Your task to perform on an android device: open app "Nova Launcher" Image 0: 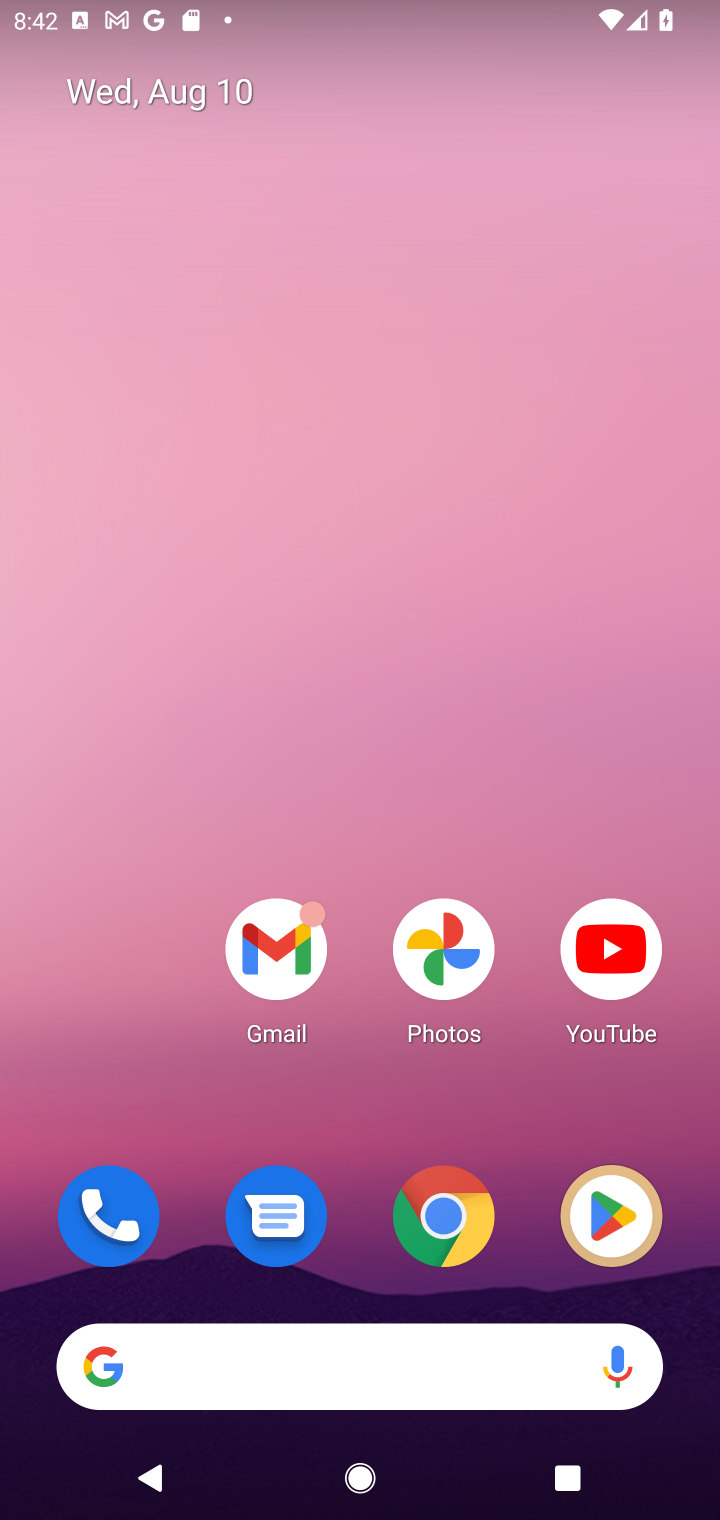
Step 0: press home button
Your task to perform on an android device: open app "Nova Launcher" Image 1: 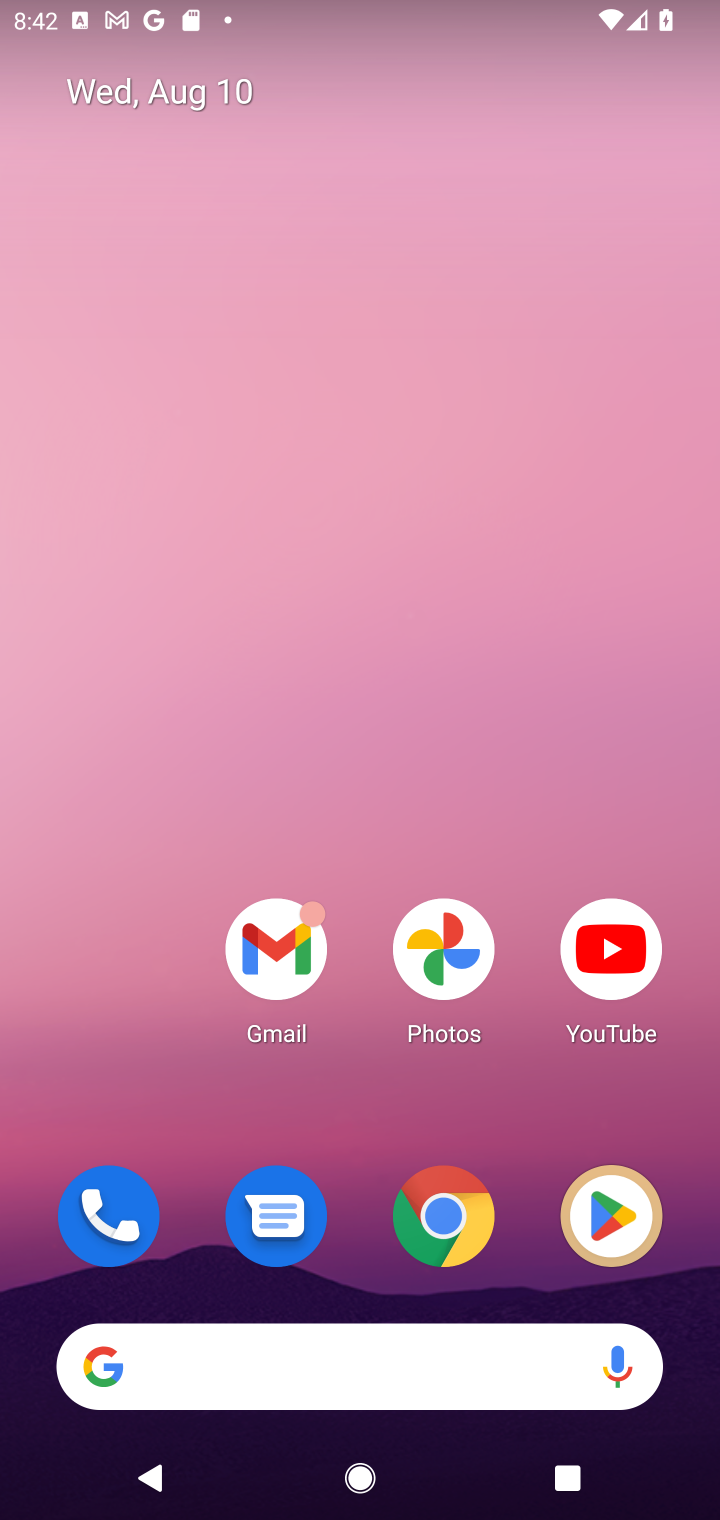
Step 1: click (621, 1195)
Your task to perform on an android device: open app "Nova Launcher" Image 2: 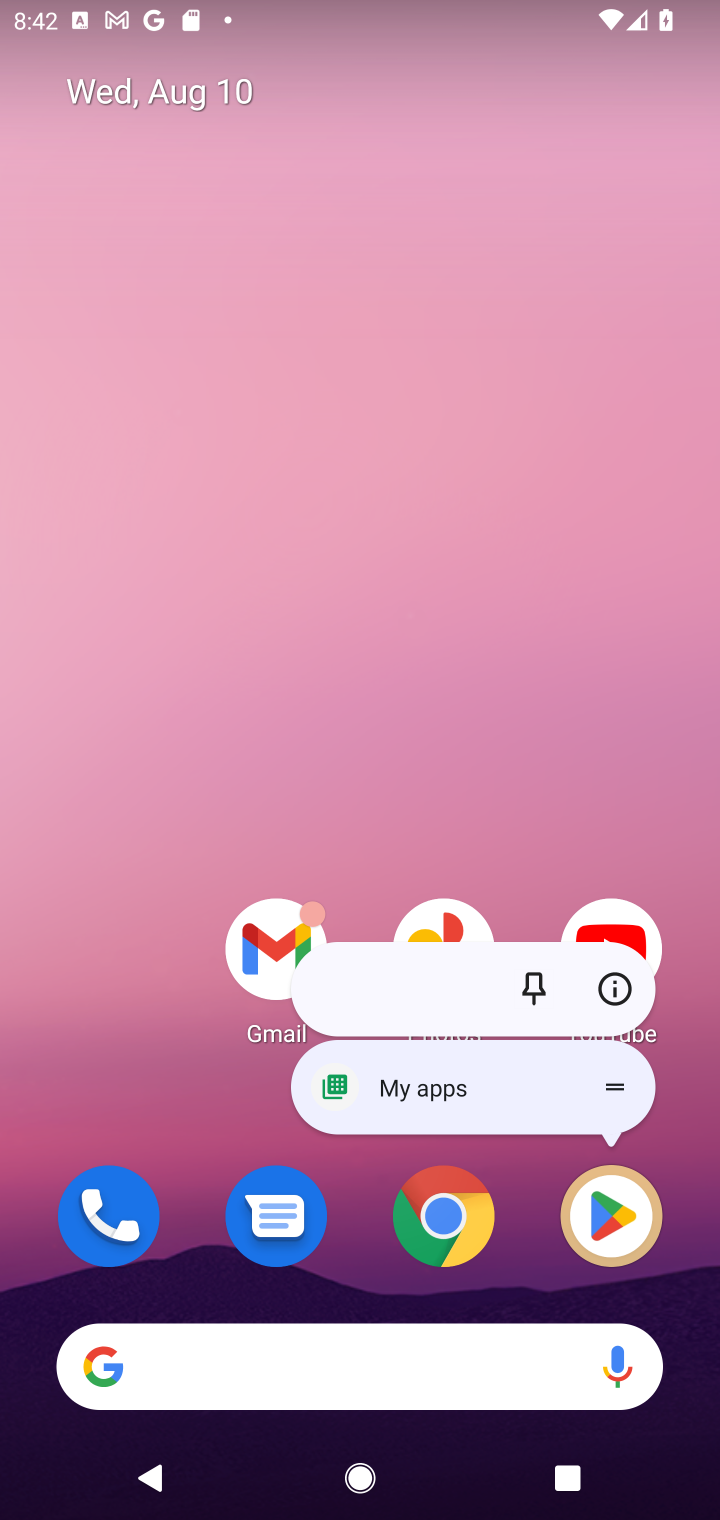
Step 2: click (601, 1220)
Your task to perform on an android device: open app "Nova Launcher" Image 3: 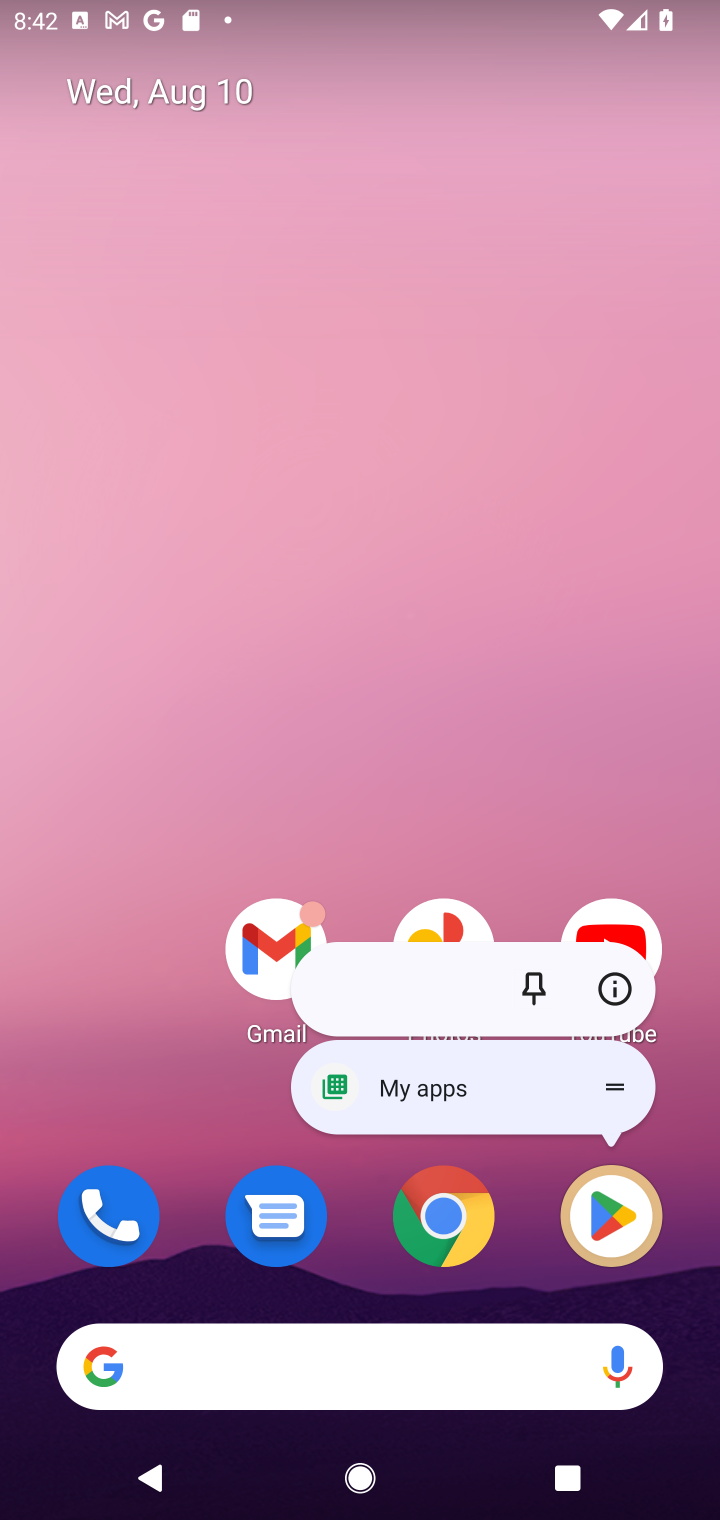
Step 3: click (629, 1198)
Your task to perform on an android device: open app "Nova Launcher" Image 4: 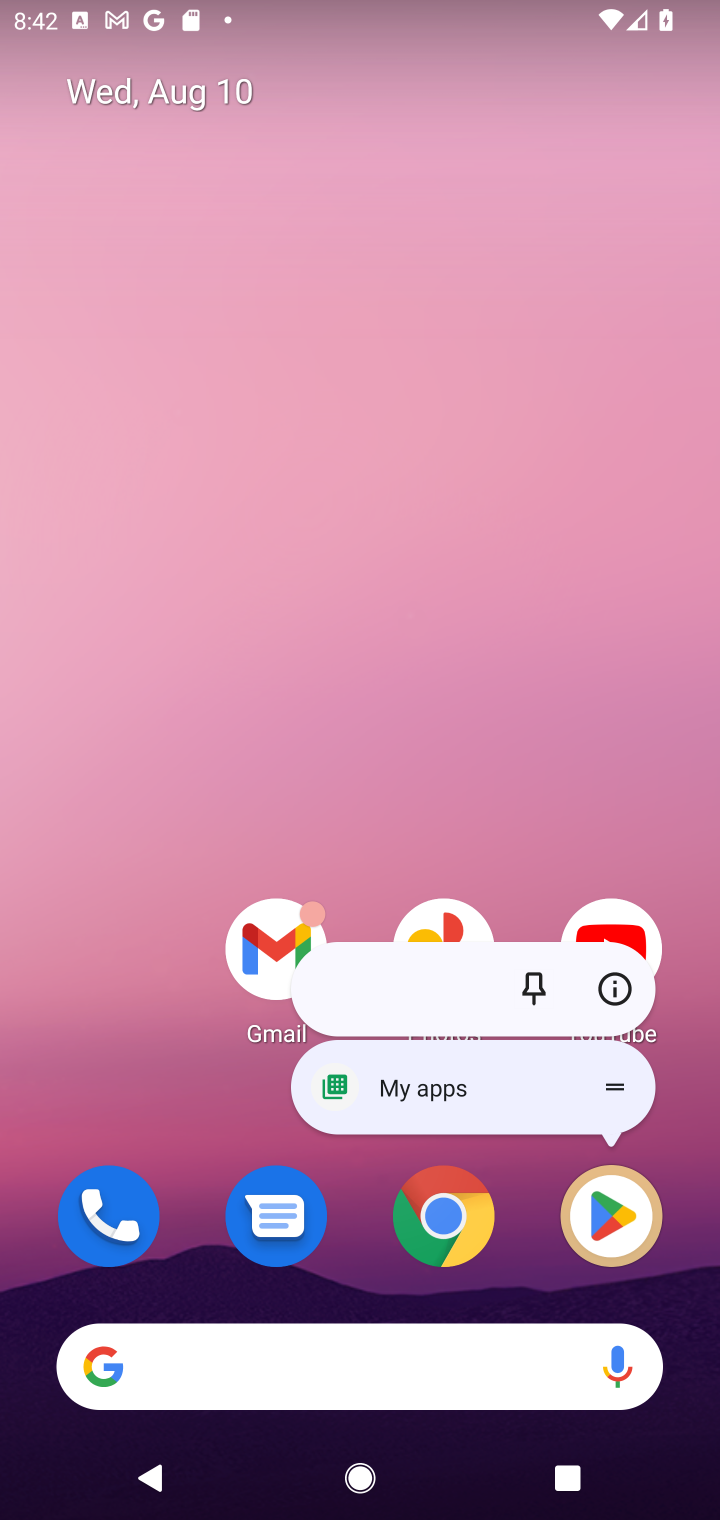
Step 4: click (627, 1211)
Your task to perform on an android device: open app "Nova Launcher" Image 5: 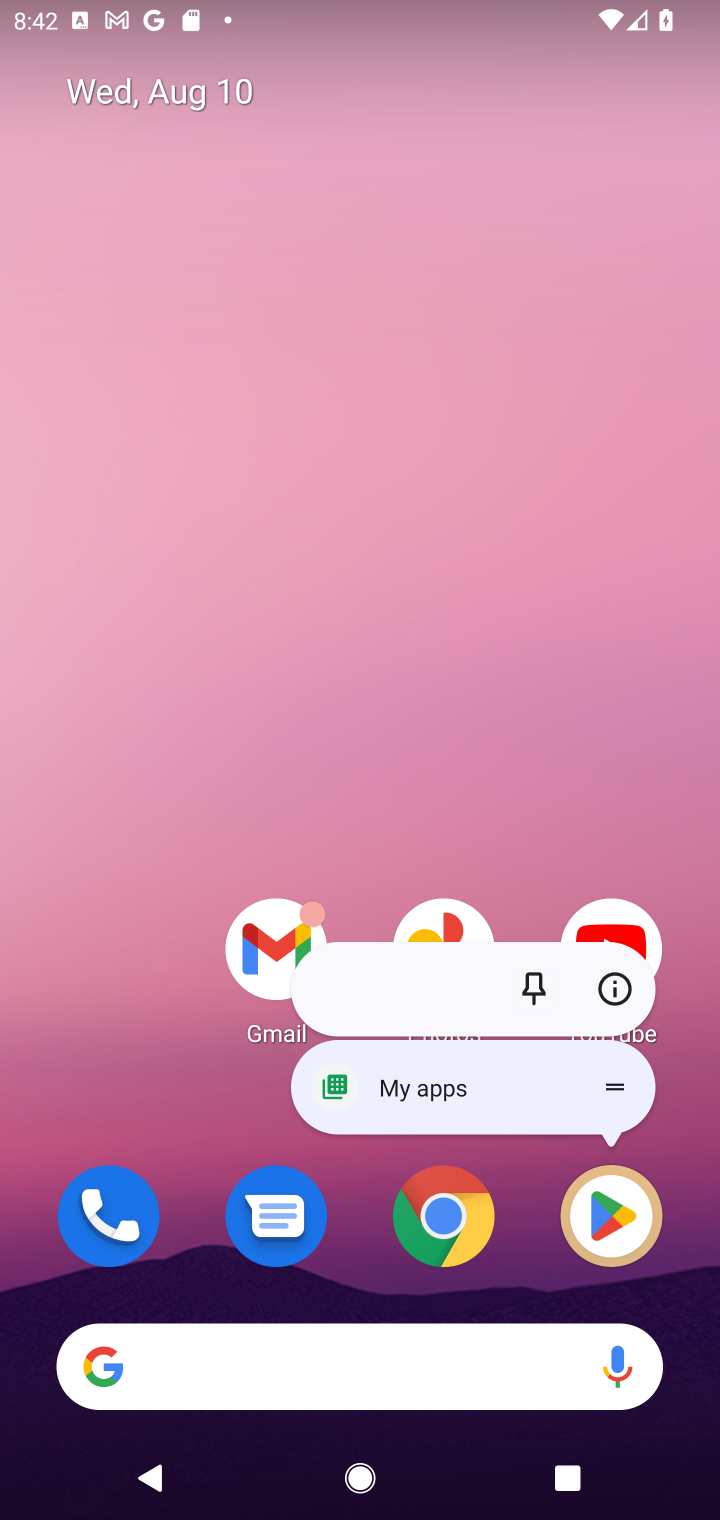
Step 5: click (613, 1202)
Your task to perform on an android device: open app "Nova Launcher" Image 6: 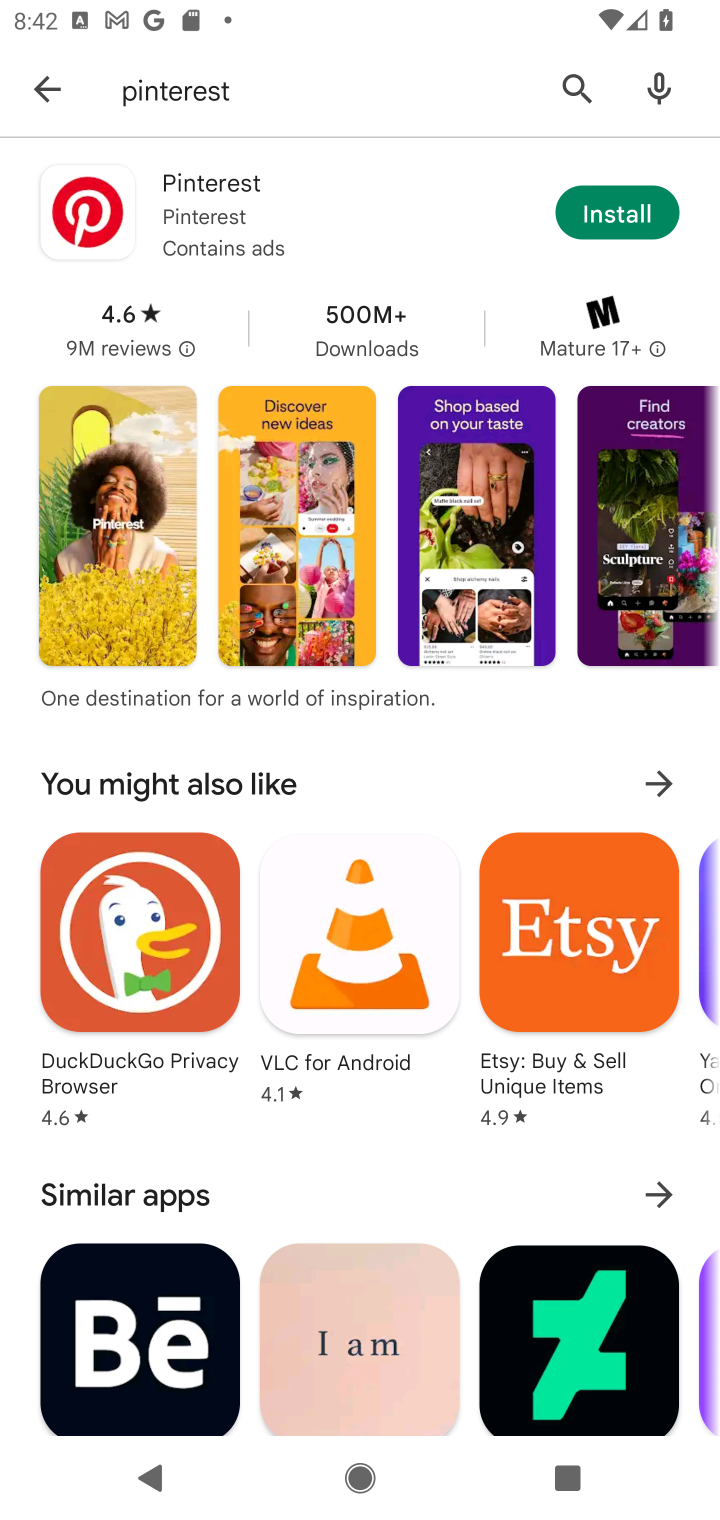
Step 6: click (582, 91)
Your task to perform on an android device: open app "Nova Launcher" Image 7: 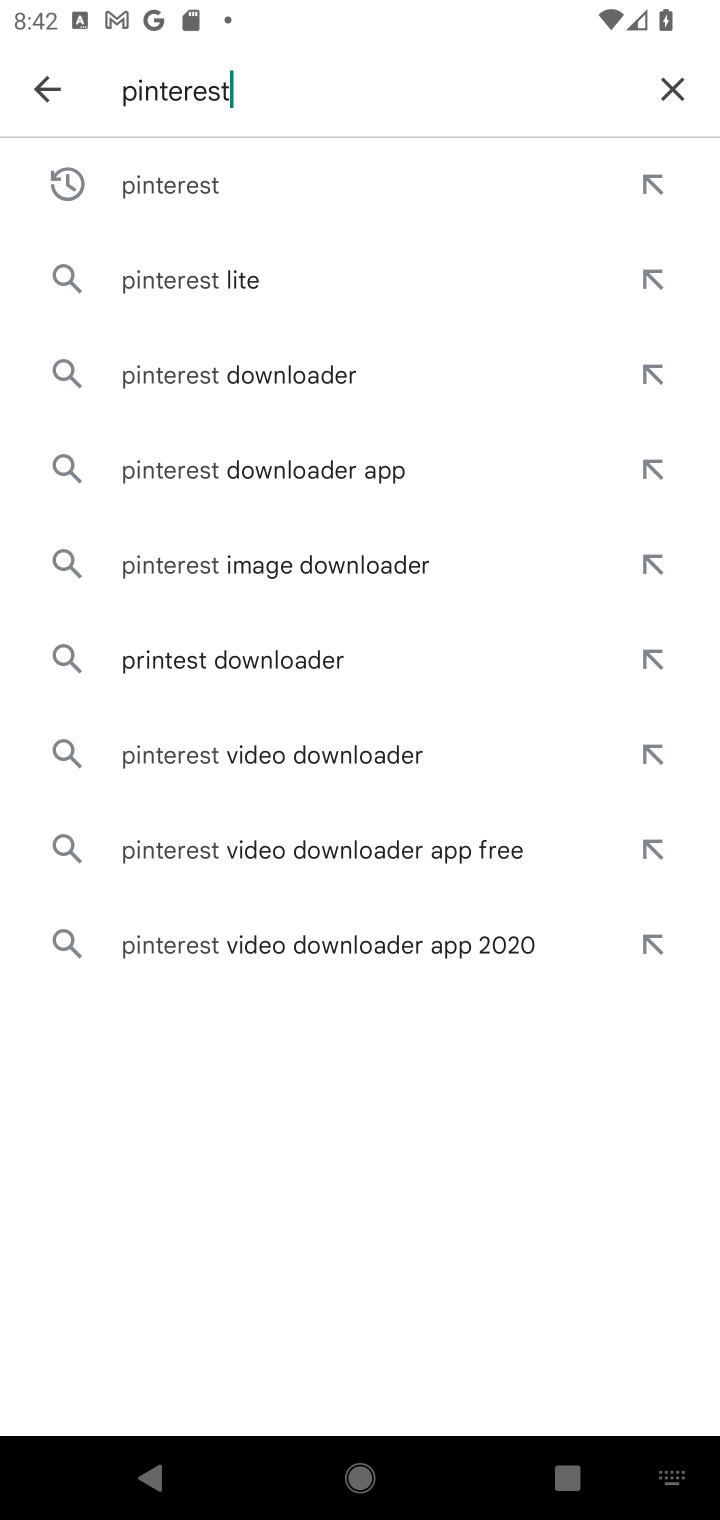
Step 7: click (667, 88)
Your task to perform on an android device: open app "Nova Launcher" Image 8: 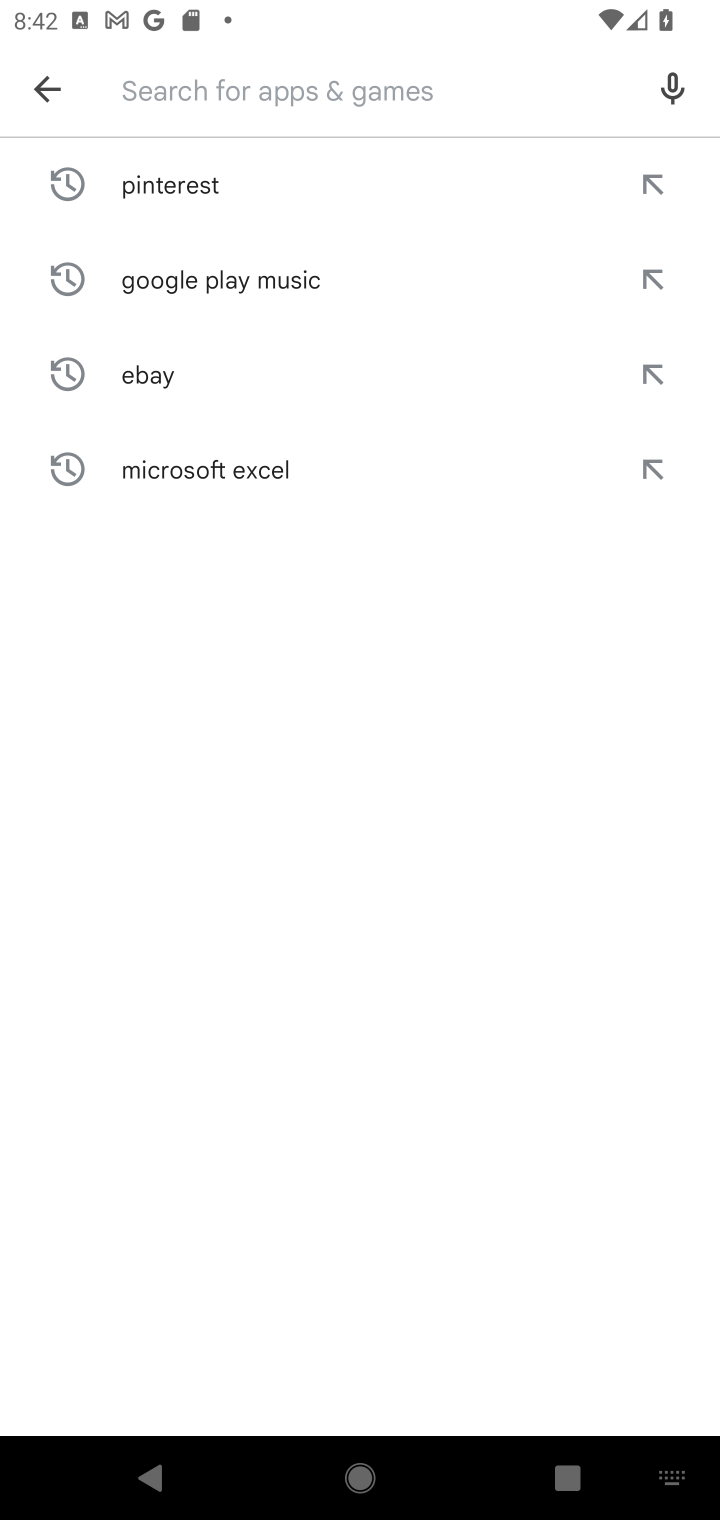
Step 8: click (167, 106)
Your task to perform on an android device: open app "Nova Launcher" Image 9: 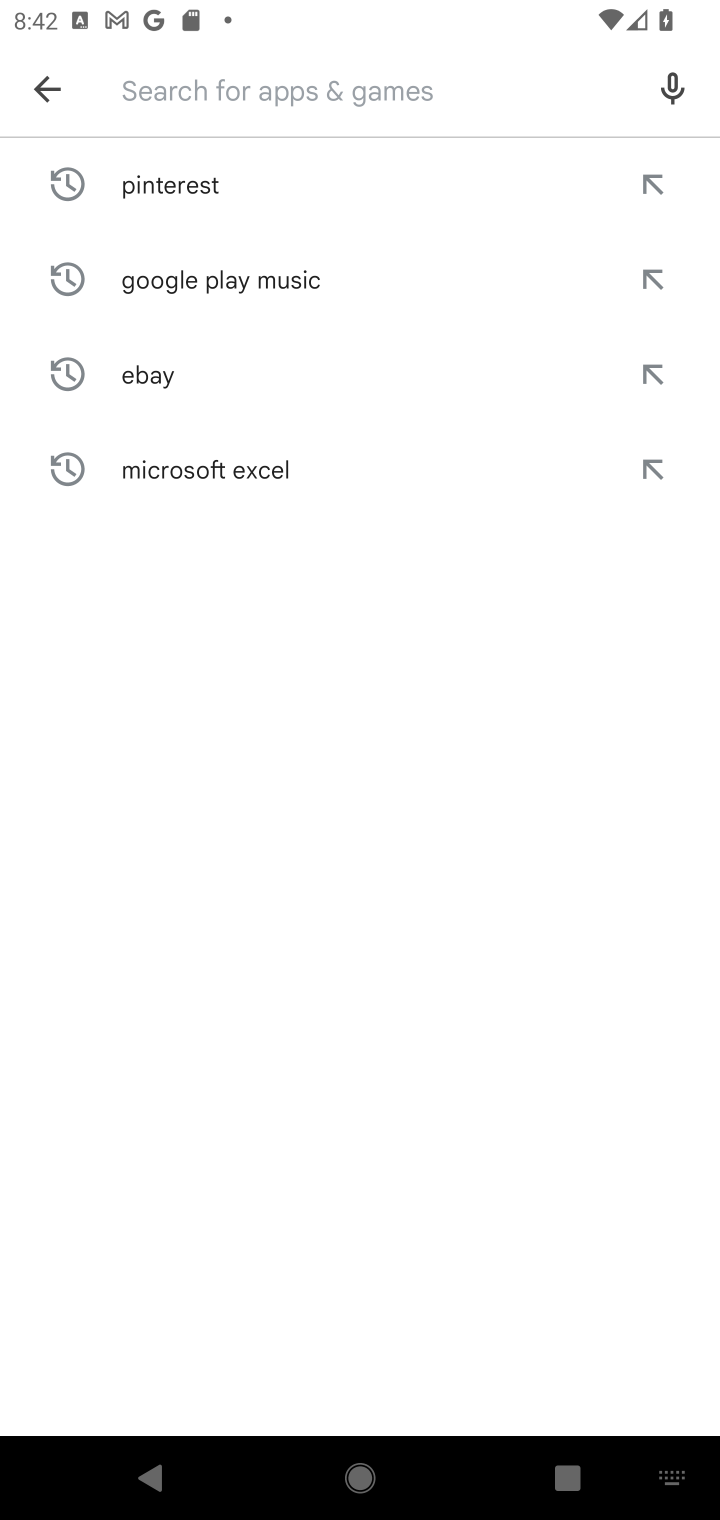
Step 9: type "Nova Launcher"
Your task to perform on an android device: open app "Nova Launcher" Image 10: 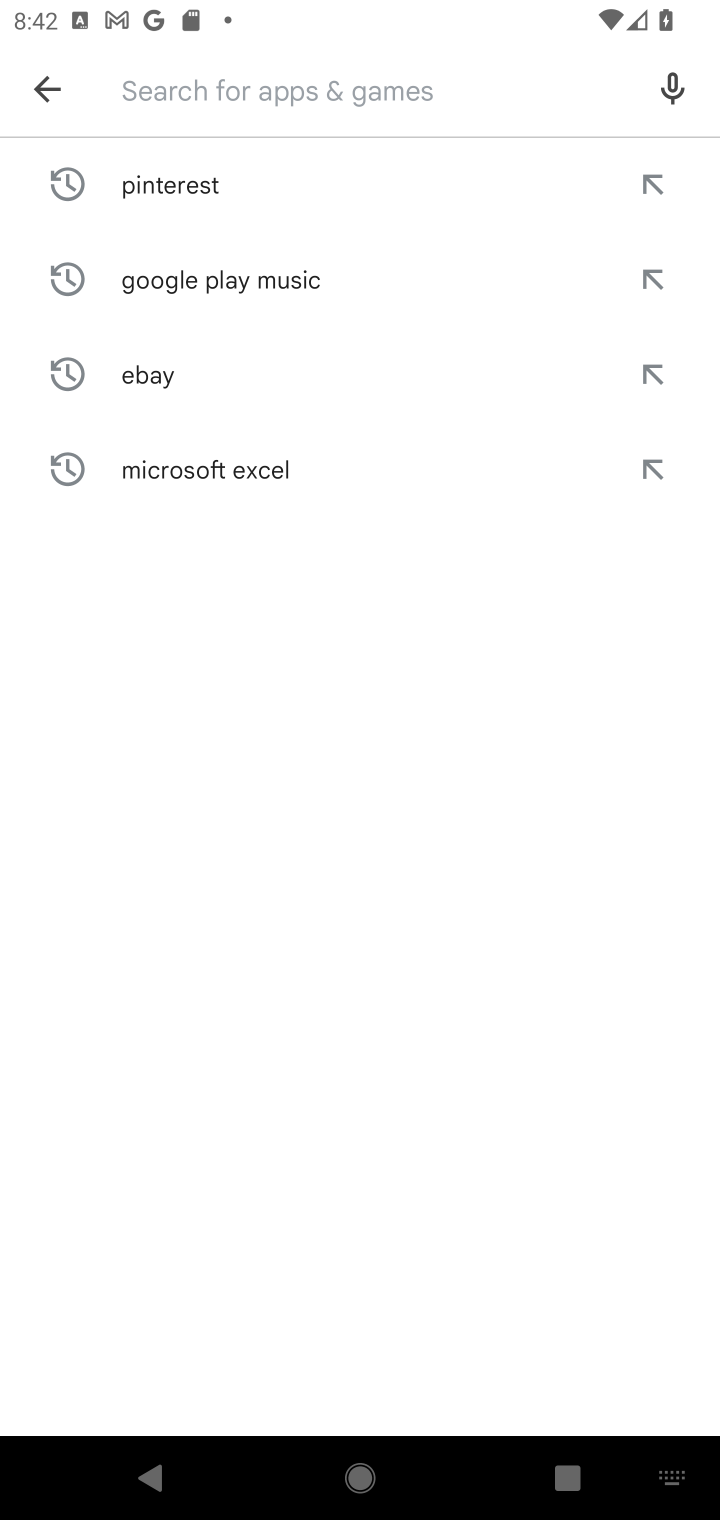
Step 10: click (352, 723)
Your task to perform on an android device: open app "Nova Launcher" Image 11: 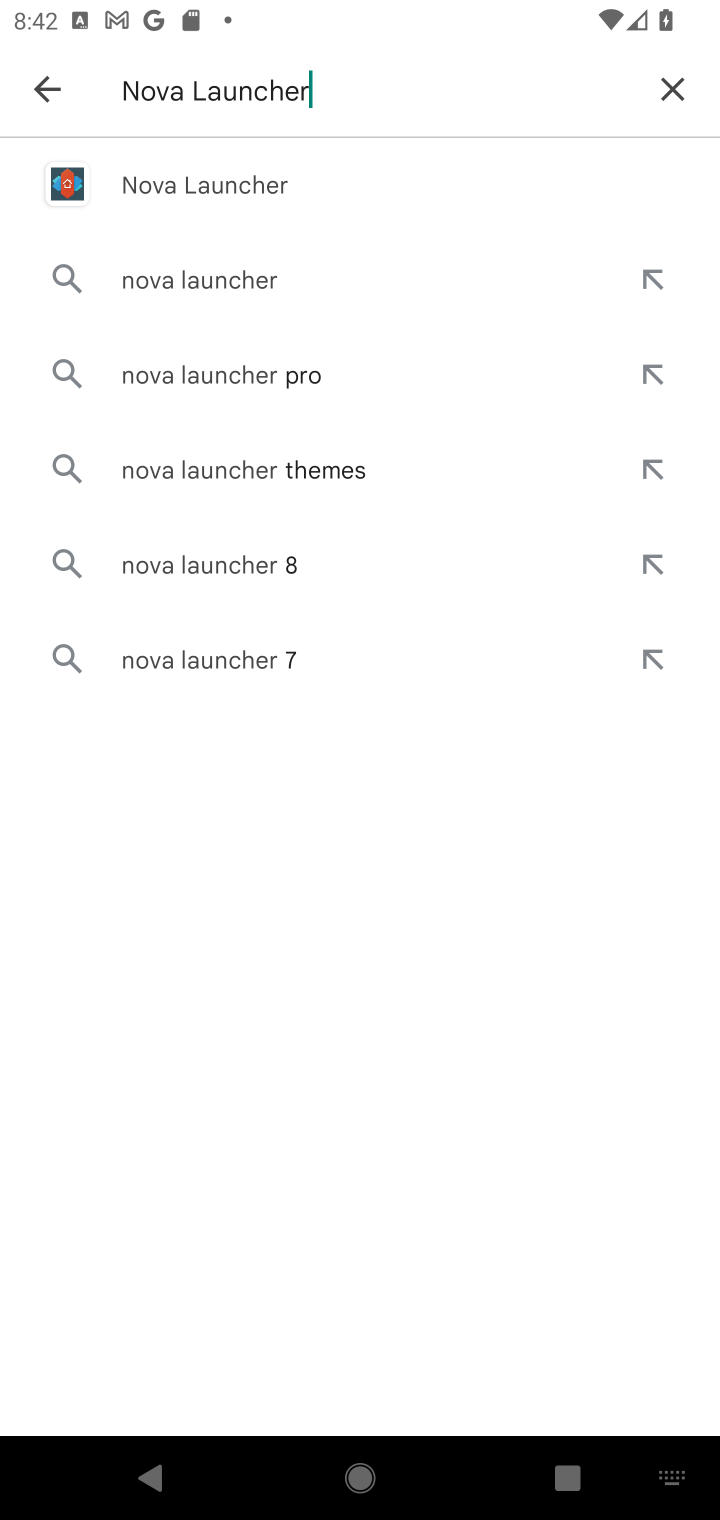
Step 11: click (194, 175)
Your task to perform on an android device: open app "Nova Launcher" Image 12: 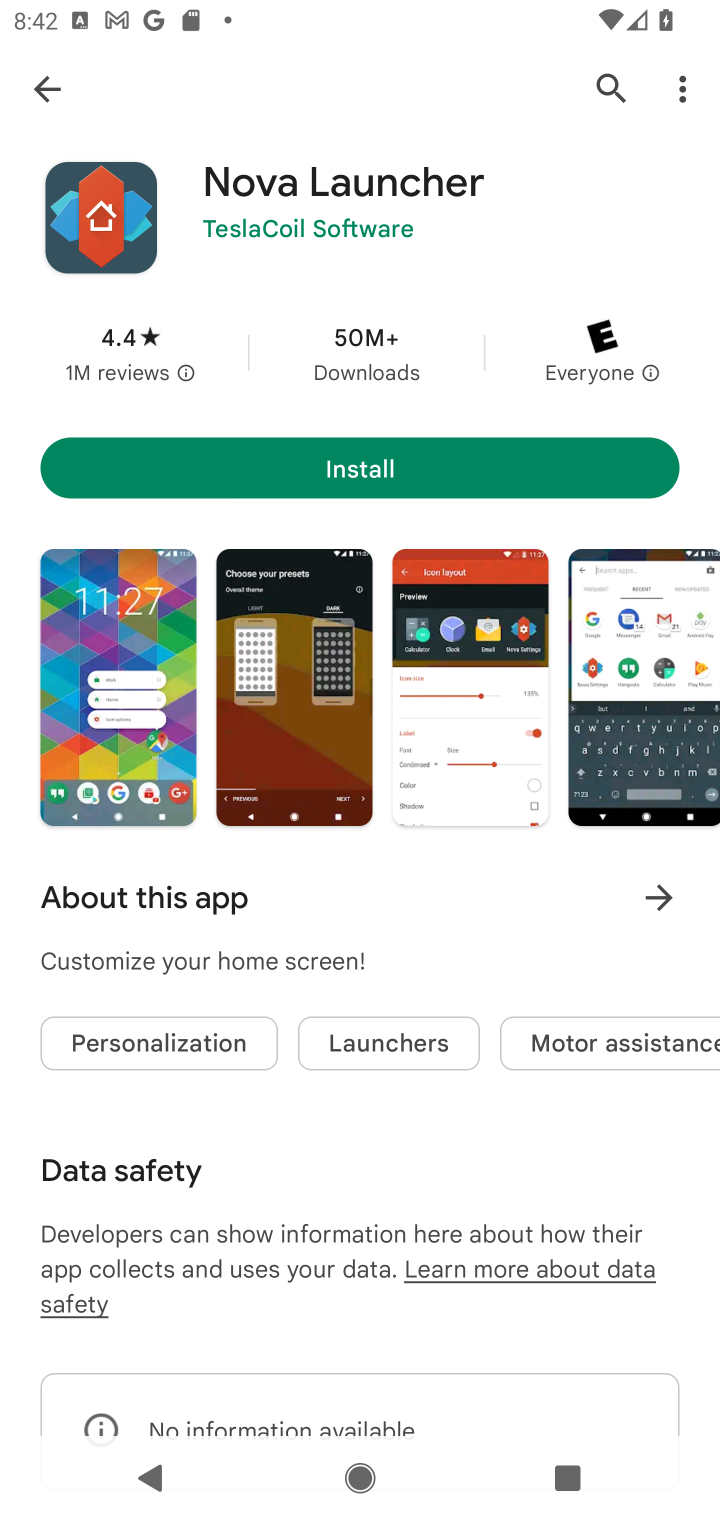
Step 12: task complete